Your task to perform on an android device: add a label to a message in the gmail app Image 0: 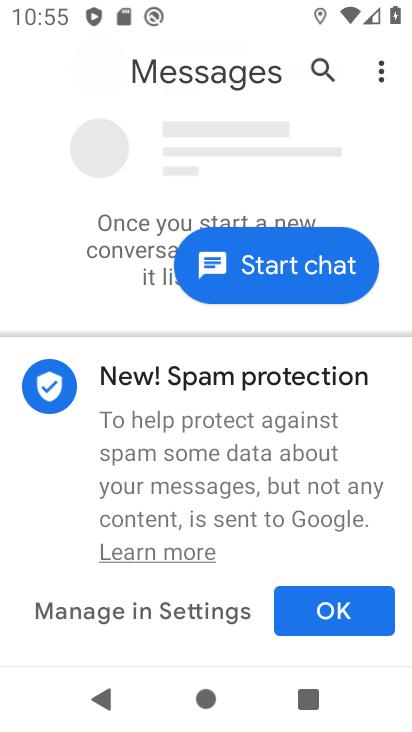
Step 0: press home button
Your task to perform on an android device: add a label to a message in the gmail app Image 1: 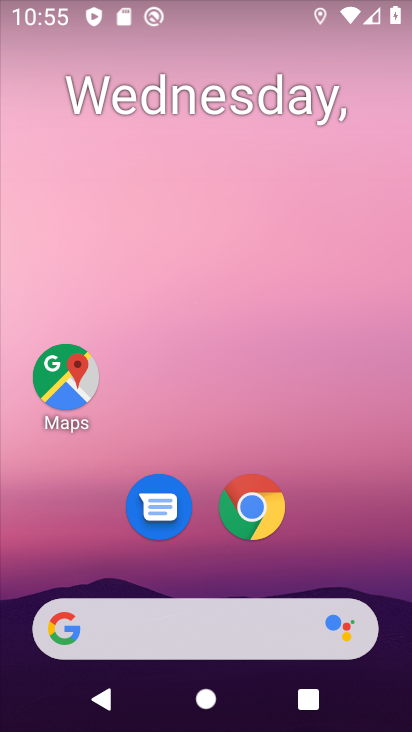
Step 1: drag from (352, 538) to (350, 87)
Your task to perform on an android device: add a label to a message in the gmail app Image 2: 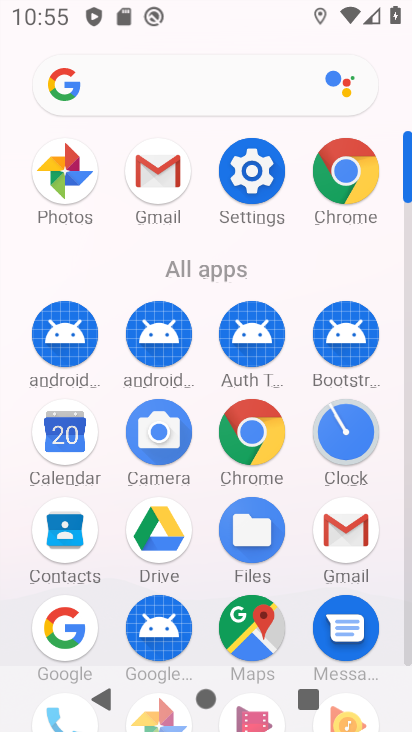
Step 2: click (345, 544)
Your task to perform on an android device: add a label to a message in the gmail app Image 3: 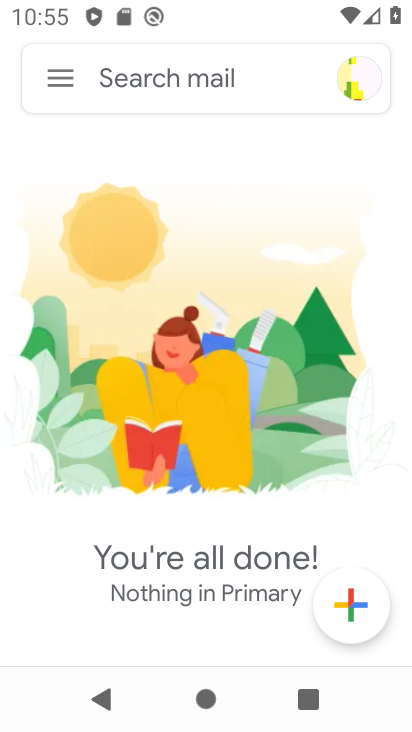
Step 3: task complete